Your task to perform on an android device: toggle wifi Image 0: 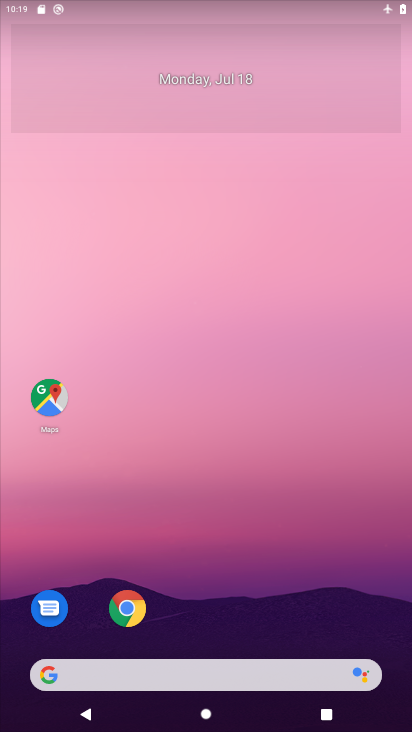
Step 0: drag from (199, 620) to (154, 80)
Your task to perform on an android device: toggle wifi Image 1: 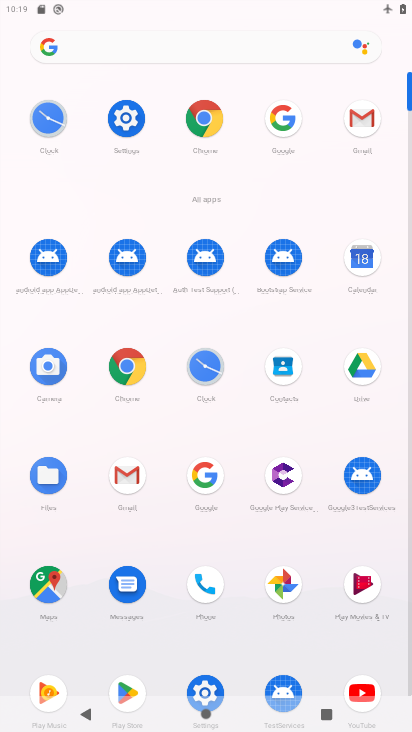
Step 1: click (134, 121)
Your task to perform on an android device: toggle wifi Image 2: 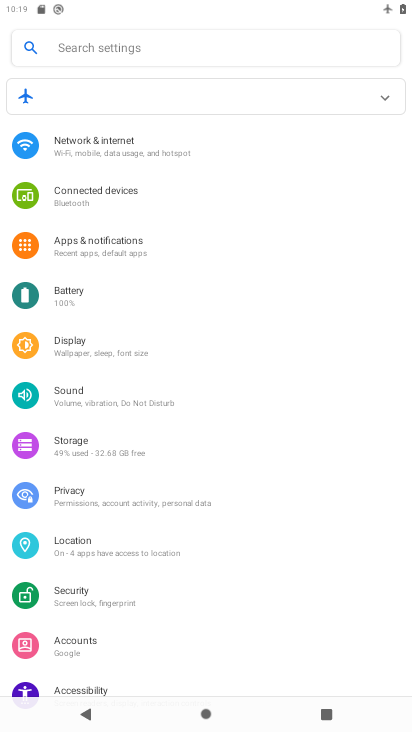
Step 2: click (96, 140)
Your task to perform on an android device: toggle wifi Image 3: 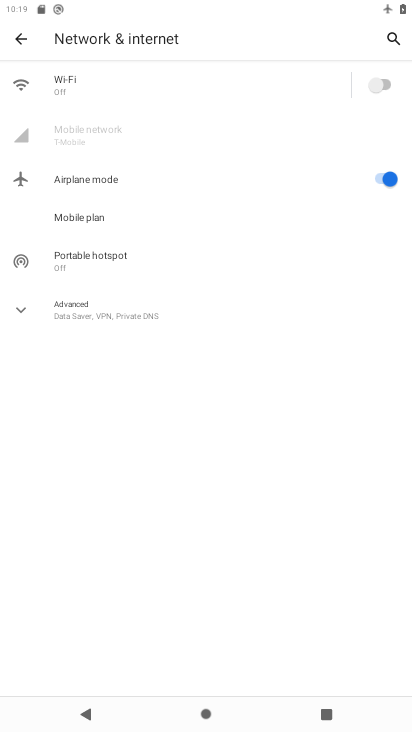
Step 3: click (372, 83)
Your task to perform on an android device: toggle wifi Image 4: 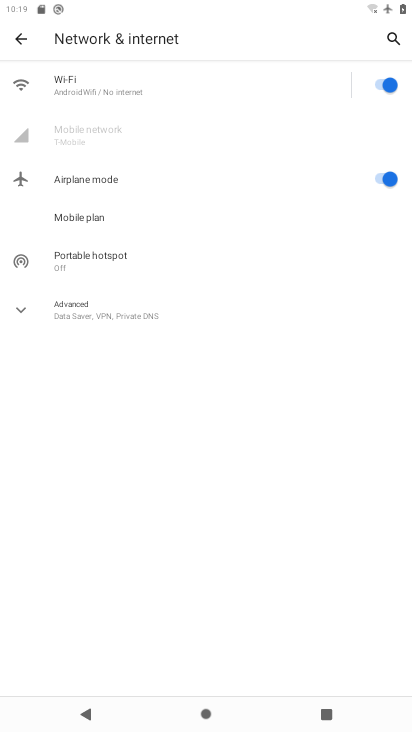
Step 4: task complete